Your task to perform on an android device: Open Chrome and go to settings Image 0: 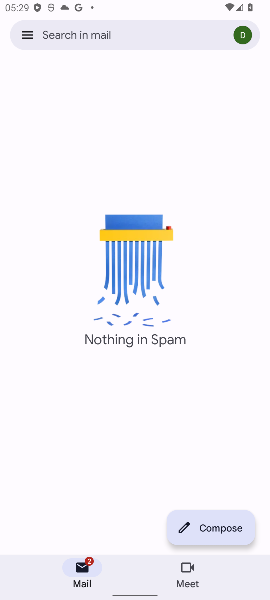
Step 0: press home button
Your task to perform on an android device: Open Chrome and go to settings Image 1: 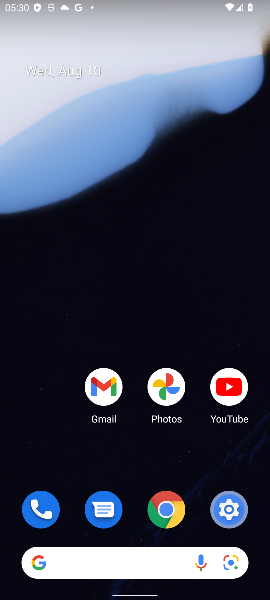
Step 1: drag from (207, 475) to (217, 110)
Your task to perform on an android device: Open Chrome and go to settings Image 2: 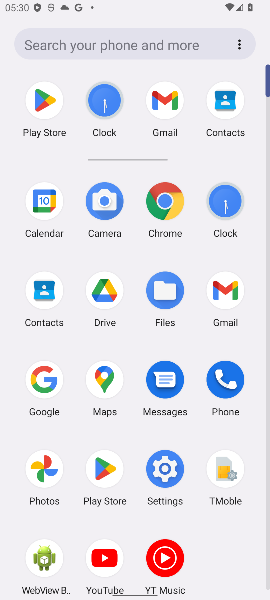
Step 2: click (169, 202)
Your task to perform on an android device: Open Chrome and go to settings Image 3: 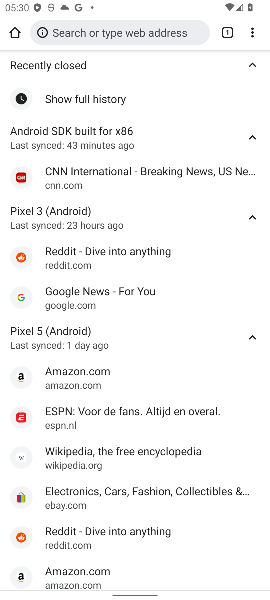
Step 3: task complete